Your task to perform on an android device: check battery use Image 0: 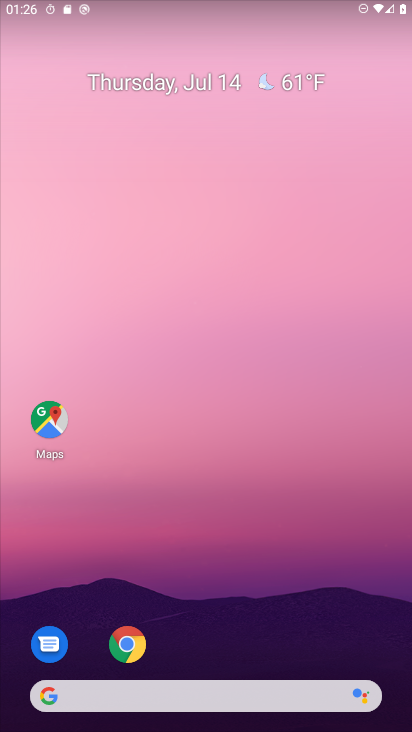
Step 0: drag from (252, 560) to (285, 66)
Your task to perform on an android device: check battery use Image 1: 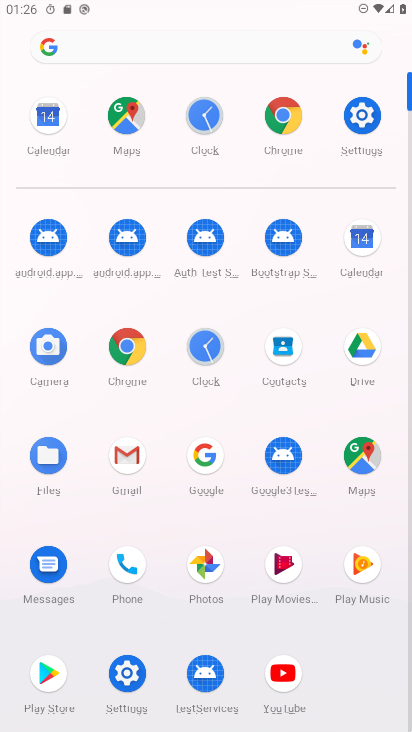
Step 1: click (370, 120)
Your task to perform on an android device: check battery use Image 2: 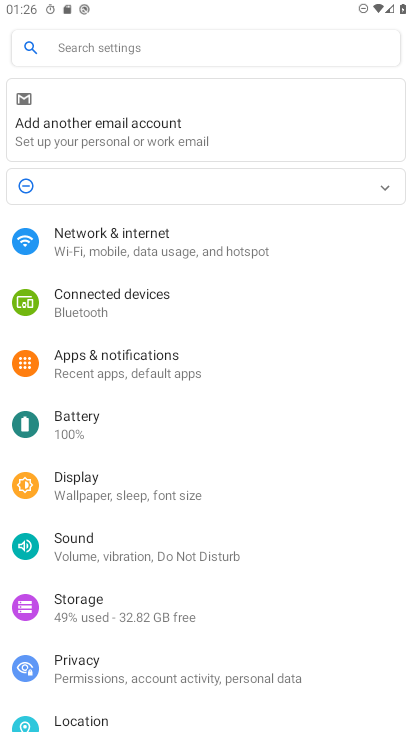
Step 2: click (99, 438)
Your task to perform on an android device: check battery use Image 3: 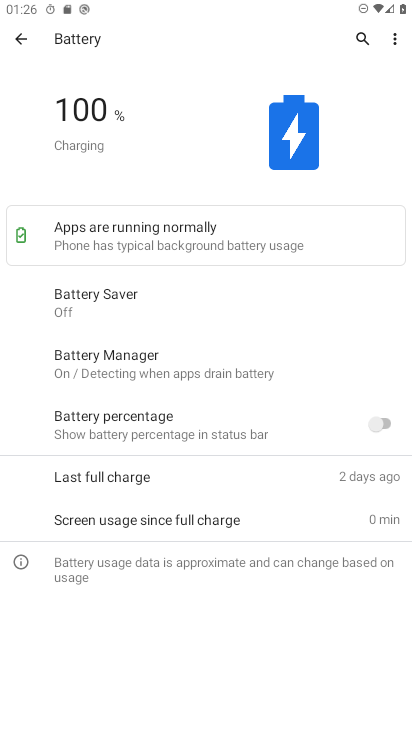
Step 3: click (398, 39)
Your task to perform on an android device: check battery use Image 4: 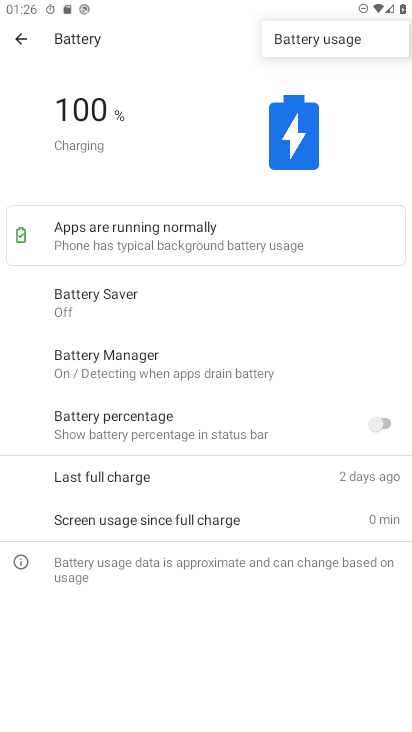
Step 4: click (353, 46)
Your task to perform on an android device: check battery use Image 5: 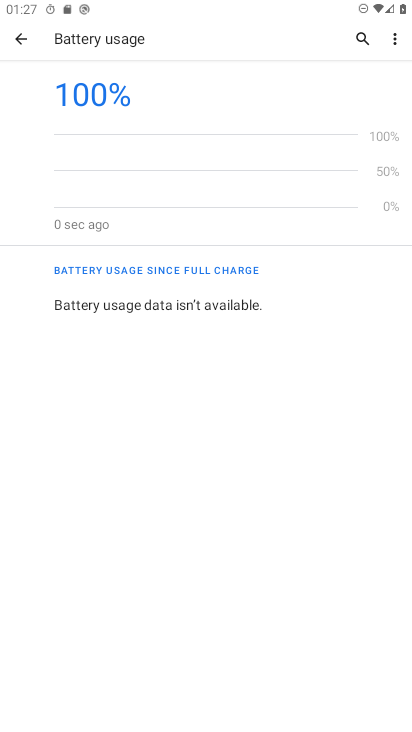
Step 5: task complete